Your task to perform on an android device: Clear the shopping cart on walmart.com. Add "lenovo thinkpad" to the cart on walmart.com Image 0: 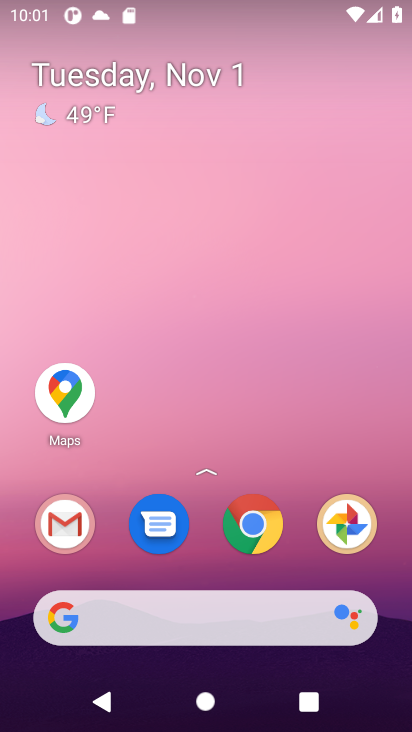
Step 0: press home button
Your task to perform on an android device: Clear the shopping cart on walmart.com. Add "lenovo thinkpad" to the cart on walmart.com Image 1: 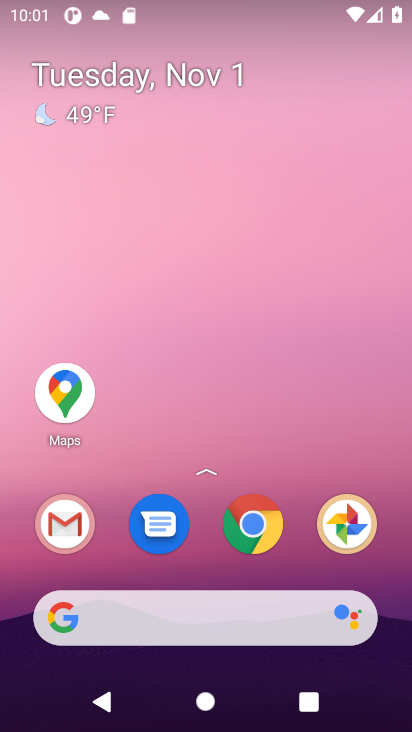
Step 1: click (88, 615)
Your task to perform on an android device: Clear the shopping cart on walmart.com. Add "lenovo thinkpad" to the cart on walmart.com Image 2: 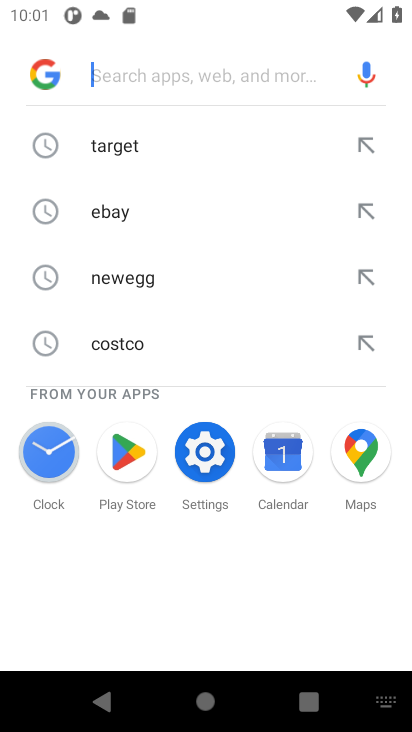
Step 2: type "walmart.com"
Your task to perform on an android device: Clear the shopping cart on walmart.com. Add "lenovo thinkpad" to the cart on walmart.com Image 3: 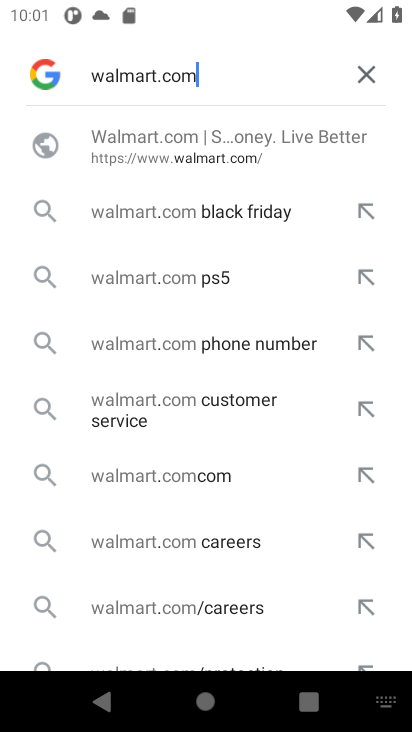
Step 3: press enter
Your task to perform on an android device: Clear the shopping cart on walmart.com. Add "lenovo thinkpad" to the cart on walmart.com Image 4: 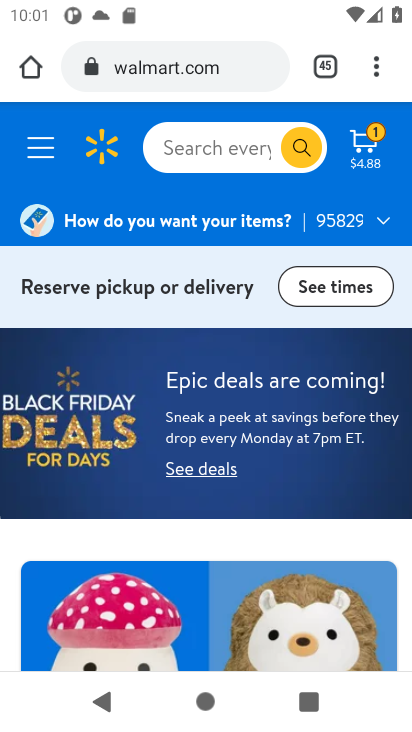
Step 4: click (367, 136)
Your task to perform on an android device: Clear the shopping cart on walmart.com. Add "lenovo thinkpad" to the cart on walmart.com Image 5: 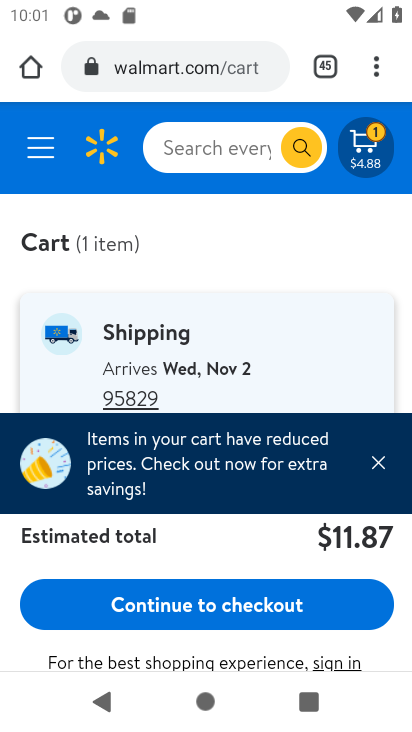
Step 5: click (375, 461)
Your task to perform on an android device: Clear the shopping cart on walmart.com. Add "lenovo thinkpad" to the cart on walmart.com Image 6: 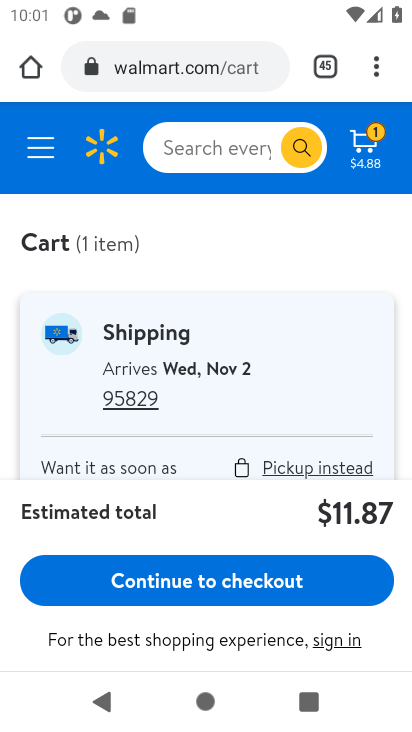
Step 6: drag from (143, 408) to (141, 229)
Your task to perform on an android device: Clear the shopping cart on walmart.com. Add "lenovo thinkpad" to the cart on walmart.com Image 7: 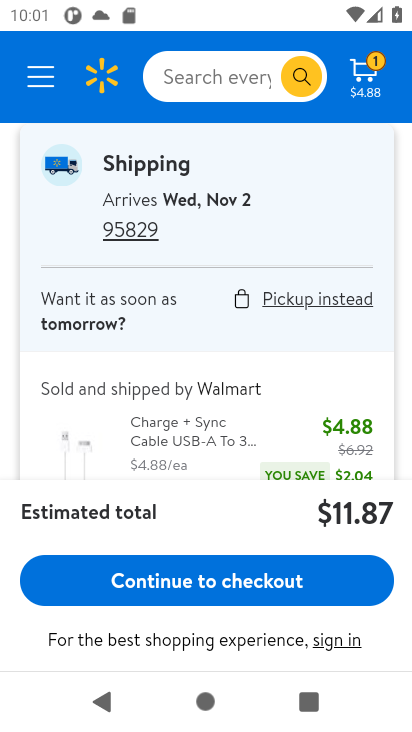
Step 7: drag from (157, 415) to (155, 187)
Your task to perform on an android device: Clear the shopping cart on walmart.com. Add "lenovo thinkpad" to the cart on walmart.com Image 8: 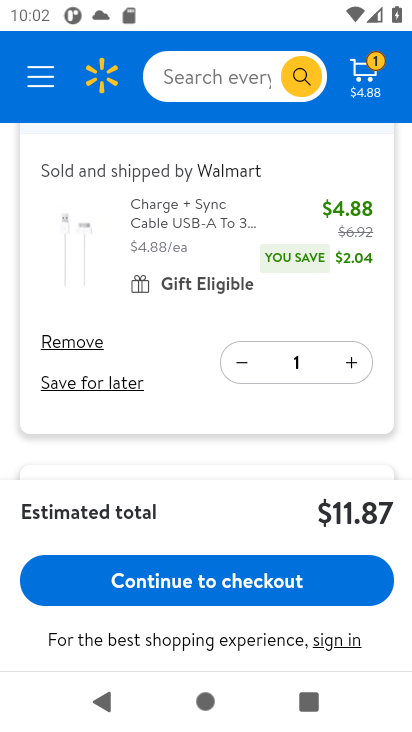
Step 8: click (69, 340)
Your task to perform on an android device: Clear the shopping cart on walmart.com. Add "lenovo thinkpad" to the cart on walmart.com Image 9: 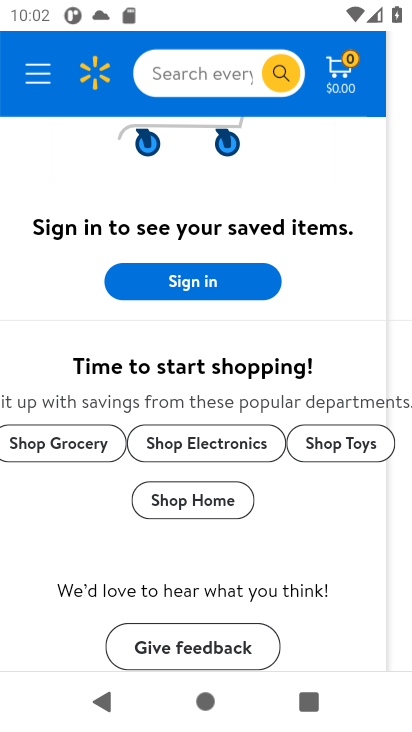
Step 9: click (175, 73)
Your task to perform on an android device: Clear the shopping cart on walmart.com. Add "lenovo thinkpad" to the cart on walmart.com Image 10: 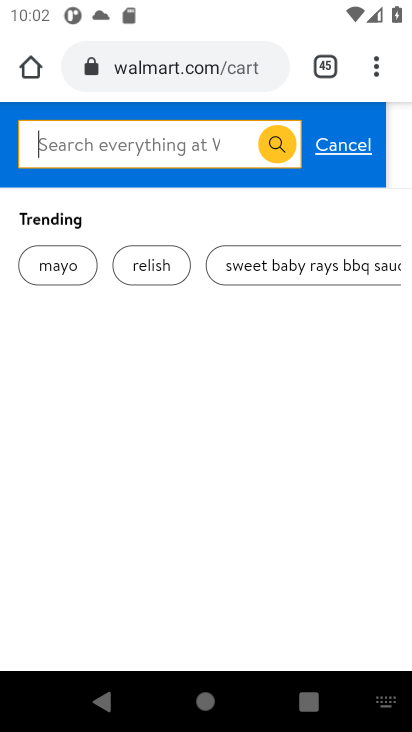
Step 10: type "lenovo thinkpad"
Your task to perform on an android device: Clear the shopping cart on walmart.com. Add "lenovo thinkpad" to the cart on walmart.com Image 11: 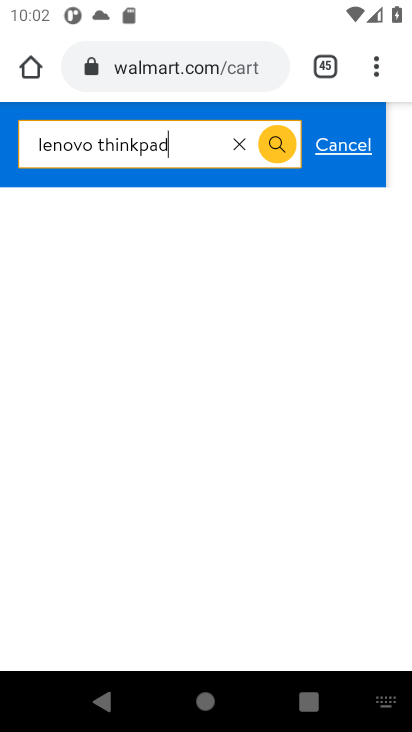
Step 11: press enter
Your task to perform on an android device: Clear the shopping cart on walmart.com. Add "lenovo thinkpad" to the cart on walmart.com Image 12: 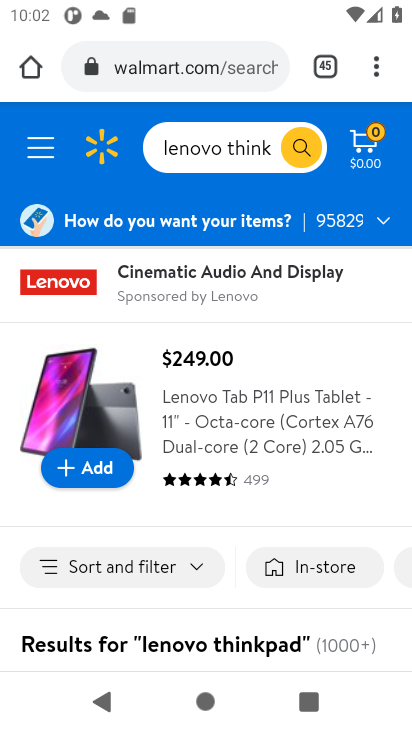
Step 12: drag from (217, 561) to (214, 361)
Your task to perform on an android device: Clear the shopping cart on walmart.com. Add "lenovo thinkpad" to the cart on walmart.com Image 13: 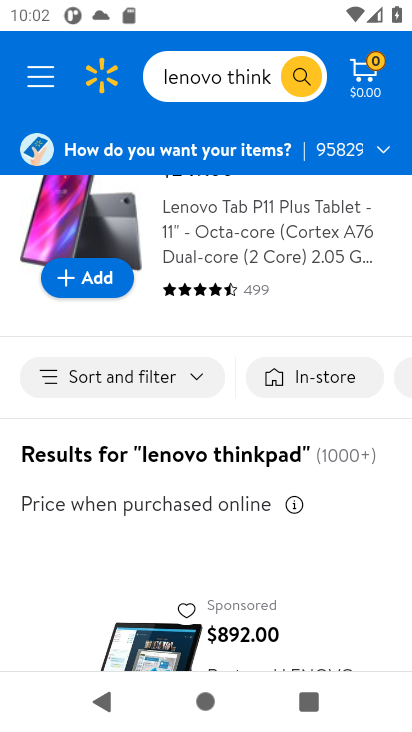
Step 13: drag from (247, 577) to (248, 334)
Your task to perform on an android device: Clear the shopping cart on walmart.com. Add "lenovo thinkpad" to the cart on walmart.com Image 14: 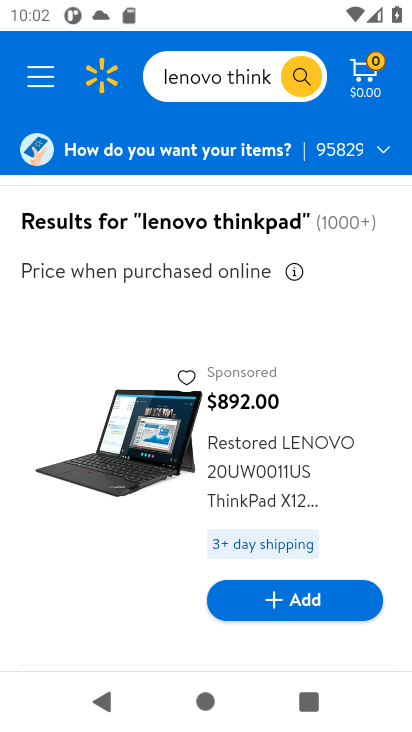
Step 14: drag from (162, 594) to (168, 235)
Your task to perform on an android device: Clear the shopping cart on walmart.com. Add "lenovo thinkpad" to the cart on walmart.com Image 15: 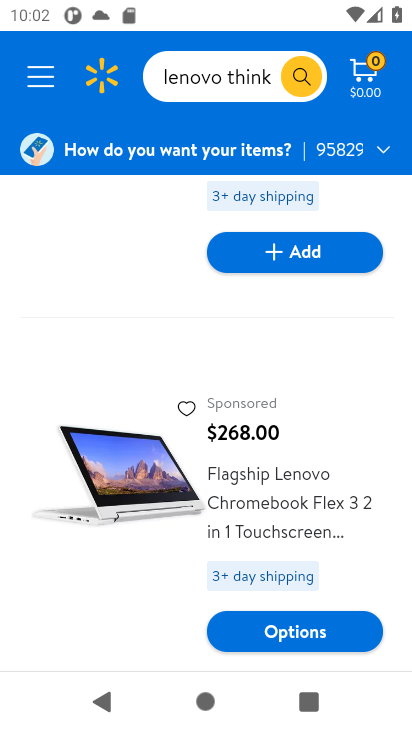
Step 15: drag from (159, 579) to (158, 292)
Your task to perform on an android device: Clear the shopping cart on walmart.com. Add "lenovo thinkpad" to the cart on walmart.com Image 16: 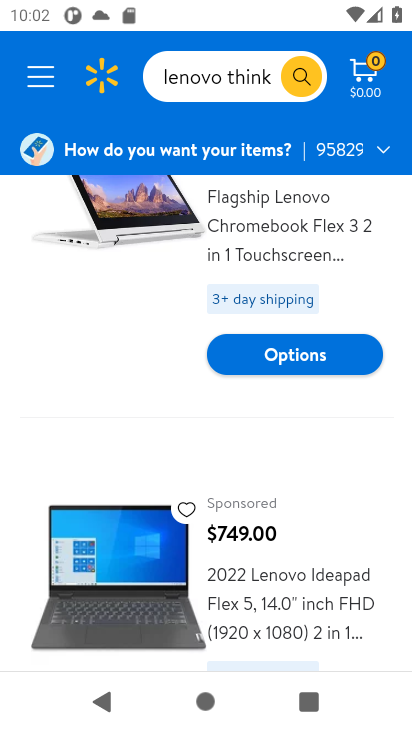
Step 16: drag from (298, 610) to (298, 207)
Your task to perform on an android device: Clear the shopping cart on walmart.com. Add "lenovo thinkpad" to the cart on walmart.com Image 17: 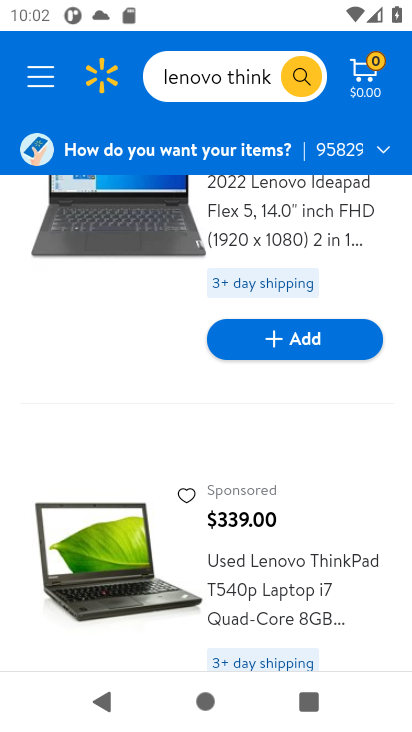
Step 17: drag from (301, 600) to (299, 374)
Your task to perform on an android device: Clear the shopping cart on walmart.com. Add "lenovo thinkpad" to the cart on walmart.com Image 18: 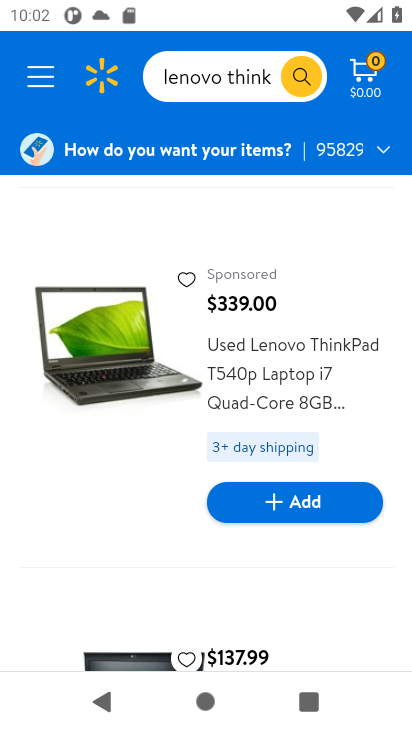
Step 18: click (305, 502)
Your task to perform on an android device: Clear the shopping cart on walmart.com. Add "lenovo thinkpad" to the cart on walmart.com Image 19: 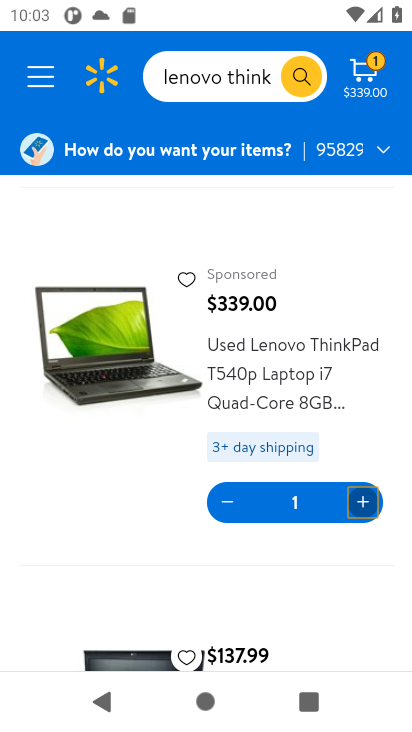
Step 19: task complete